Your task to perform on an android device: add a contact in the contacts app Image 0: 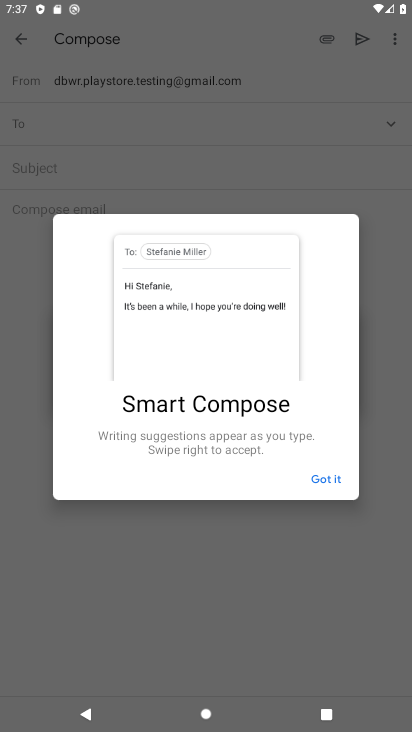
Step 0: press home button
Your task to perform on an android device: add a contact in the contacts app Image 1: 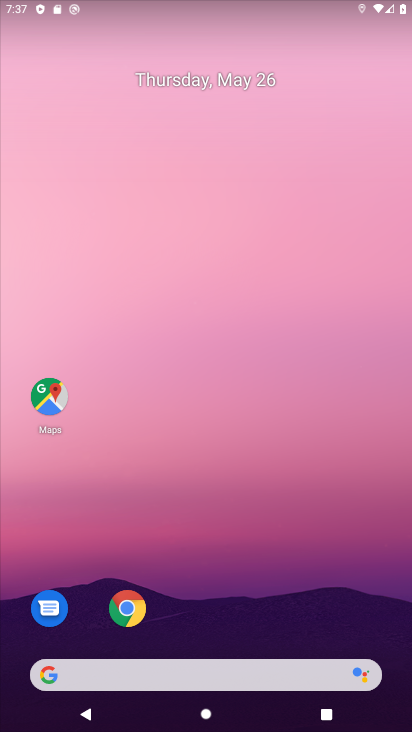
Step 1: drag from (309, 636) to (332, 2)
Your task to perform on an android device: add a contact in the contacts app Image 2: 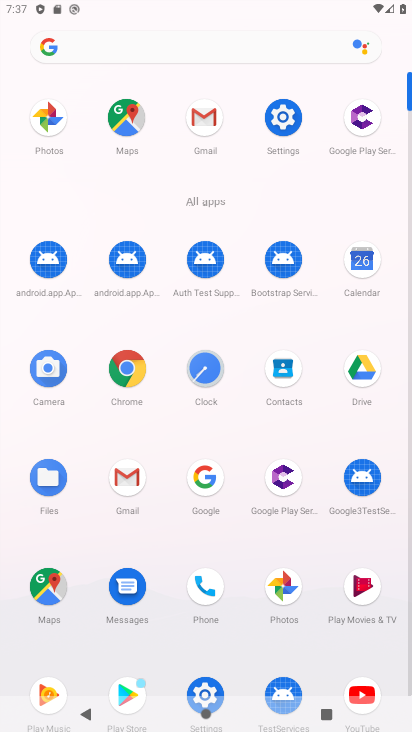
Step 2: click (282, 365)
Your task to perform on an android device: add a contact in the contacts app Image 3: 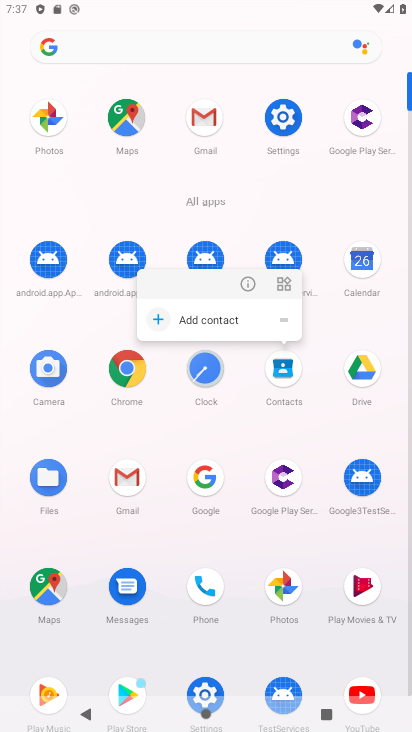
Step 3: click (282, 365)
Your task to perform on an android device: add a contact in the contacts app Image 4: 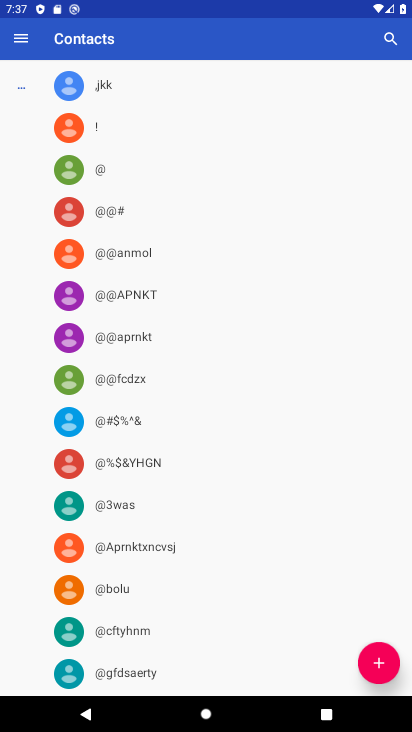
Step 4: click (380, 658)
Your task to perform on an android device: add a contact in the contacts app Image 5: 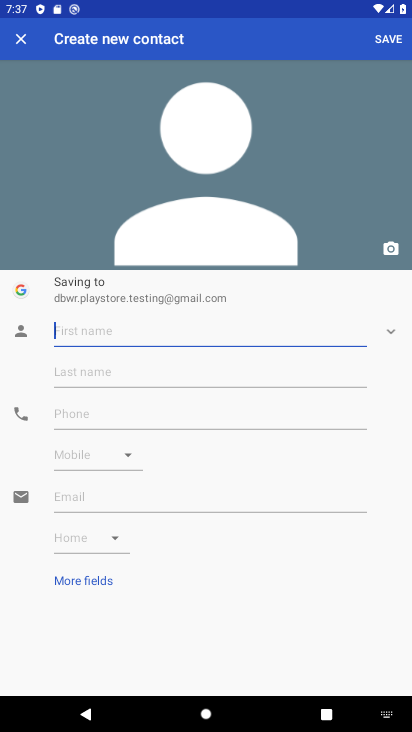
Step 5: type "pallav"
Your task to perform on an android device: add a contact in the contacts app Image 6: 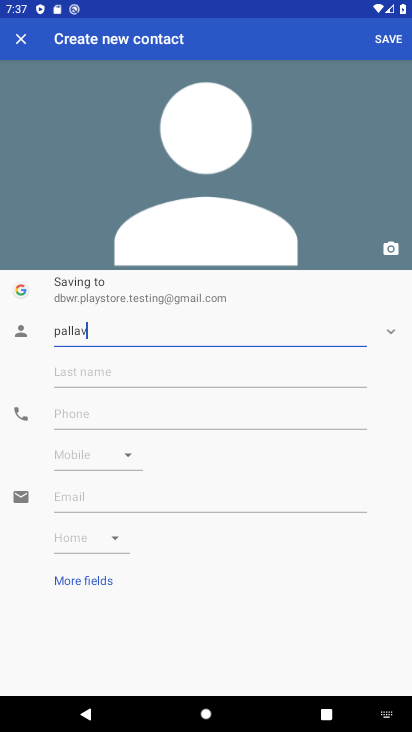
Step 6: click (62, 415)
Your task to perform on an android device: add a contact in the contacts app Image 7: 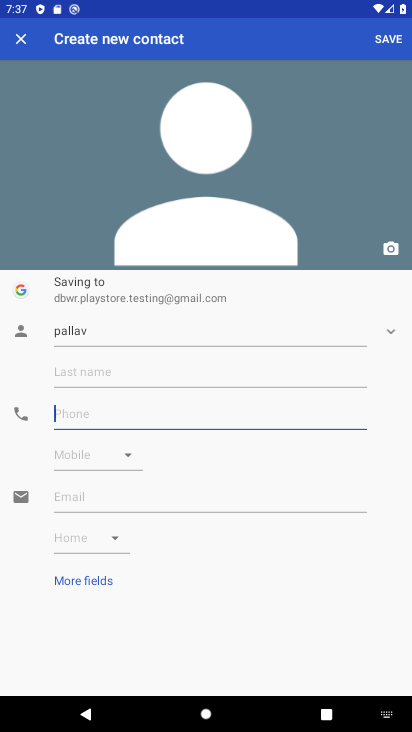
Step 7: type "988773737"
Your task to perform on an android device: add a contact in the contacts app Image 8: 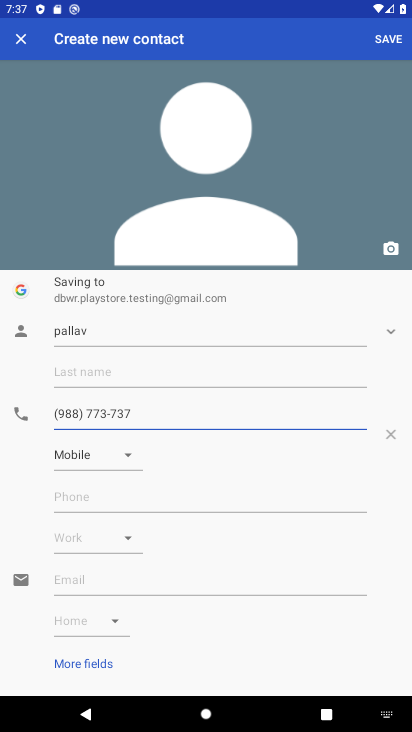
Step 8: click (376, 35)
Your task to perform on an android device: add a contact in the contacts app Image 9: 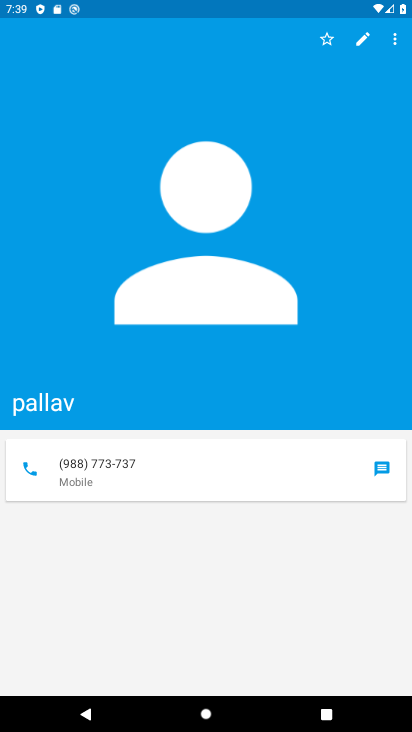
Step 9: task complete